Your task to perform on an android device: Open Google Chrome Image 0: 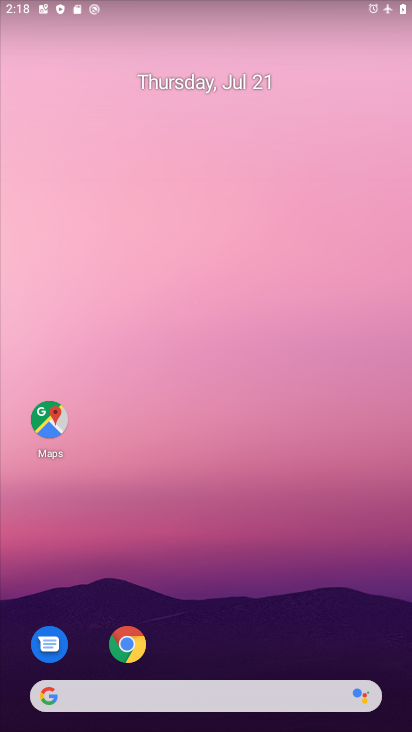
Step 0: click (127, 647)
Your task to perform on an android device: Open Google Chrome Image 1: 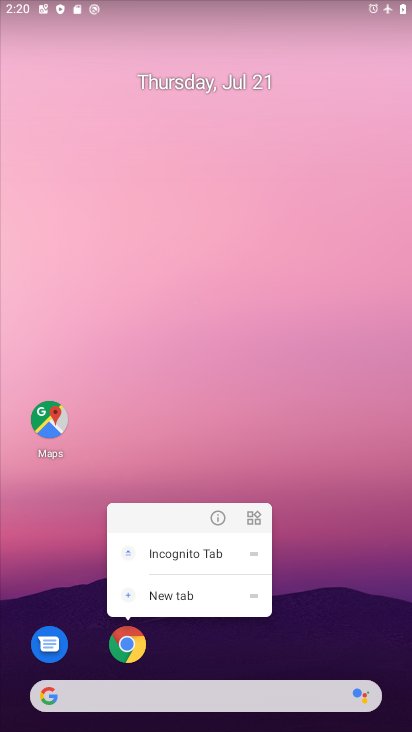
Step 1: click (134, 651)
Your task to perform on an android device: Open Google Chrome Image 2: 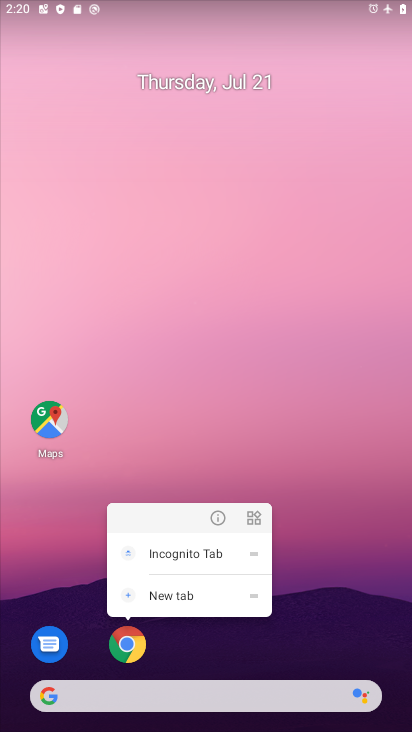
Step 2: click (115, 644)
Your task to perform on an android device: Open Google Chrome Image 3: 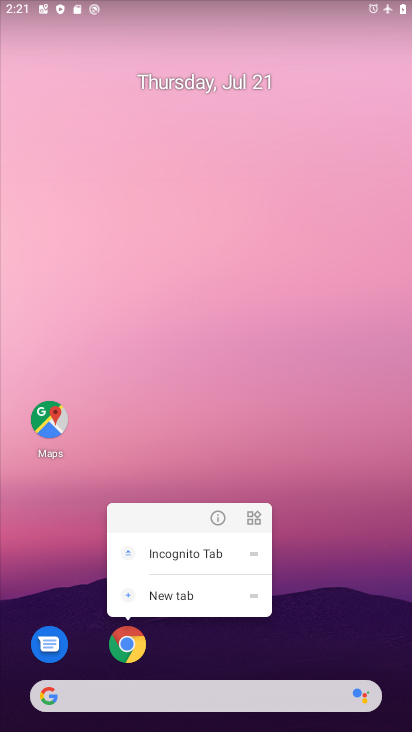
Step 3: click (124, 647)
Your task to perform on an android device: Open Google Chrome Image 4: 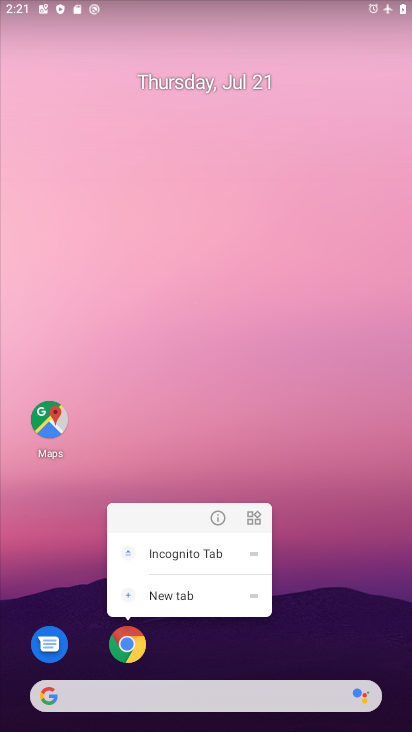
Step 4: click (129, 652)
Your task to perform on an android device: Open Google Chrome Image 5: 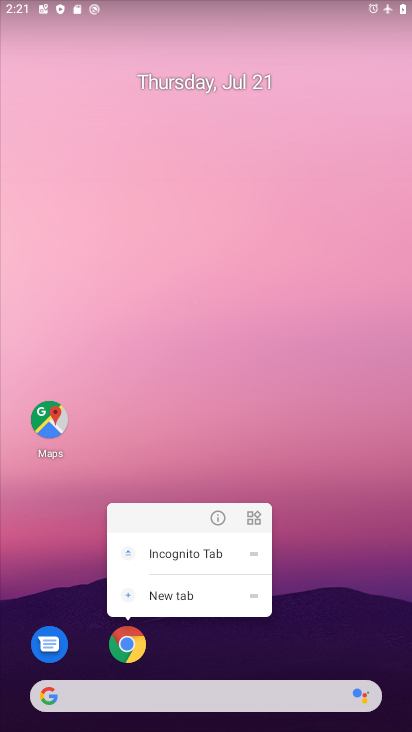
Step 5: click (126, 647)
Your task to perform on an android device: Open Google Chrome Image 6: 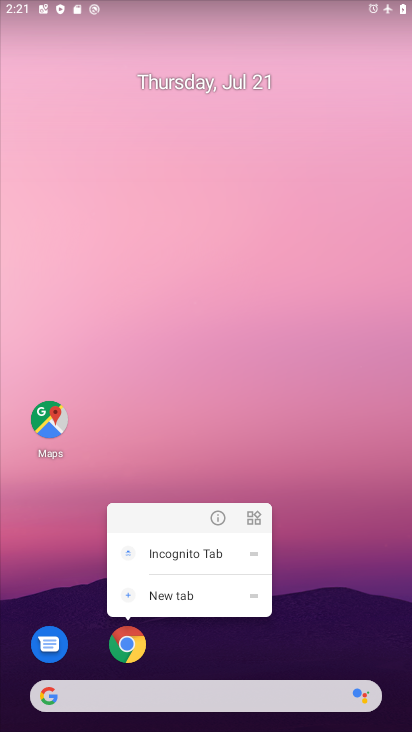
Step 6: click (128, 662)
Your task to perform on an android device: Open Google Chrome Image 7: 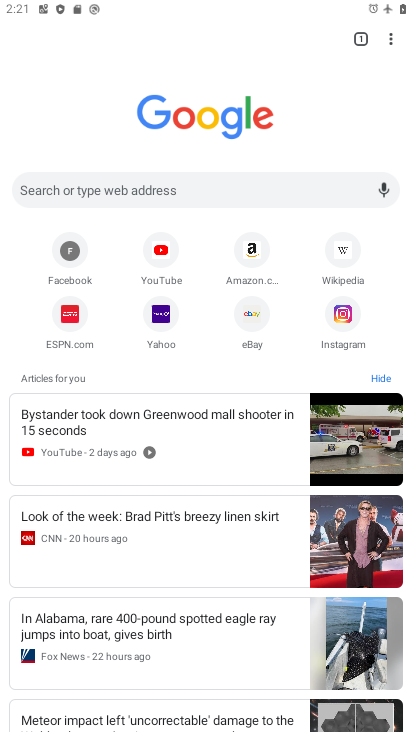
Step 7: task complete